Your task to perform on an android device: turn on the 12-hour format for clock Image 0: 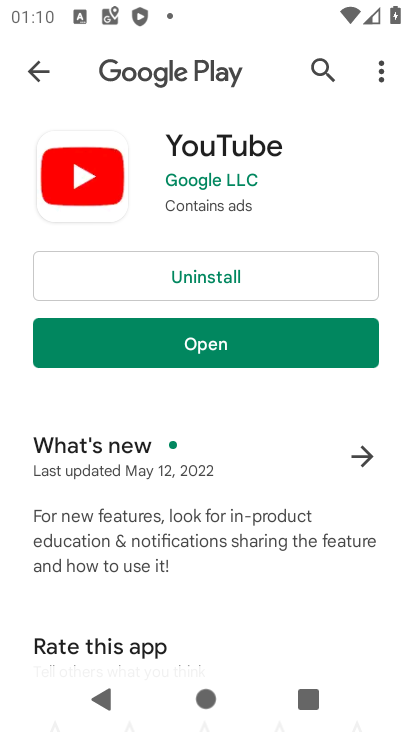
Step 0: press home button
Your task to perform on an android device: turn on the 12-hour format for clock Image 1: 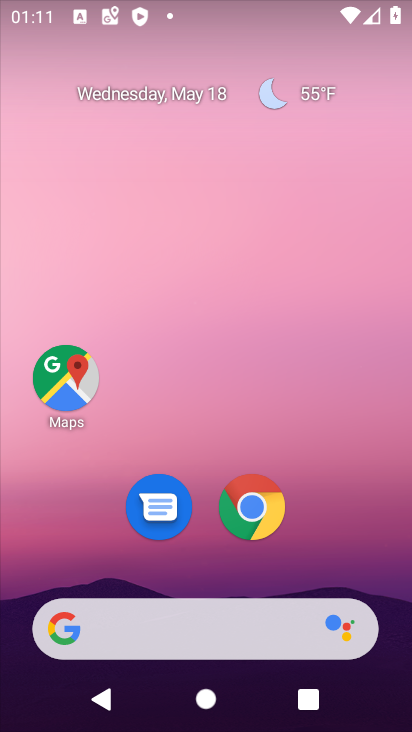
Step 1: drag from (393, 627) to (301, 14)
Your task to perform on an android device: turn on the 12-hour format for clock Image 2: 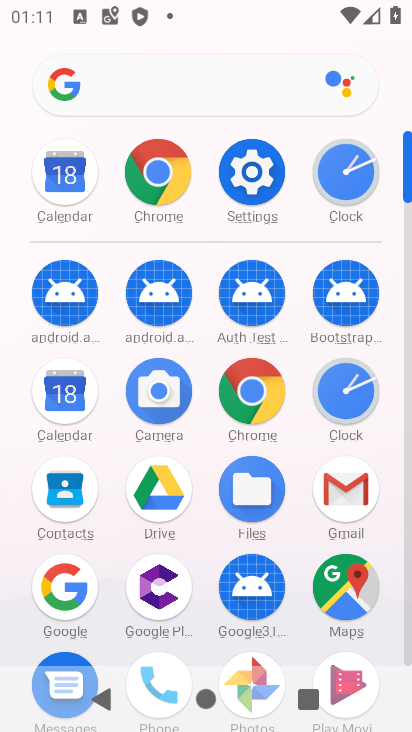
Step 2: click (344, 390)
Your task to perform on an android device: turn on the 12-hour format for clock Image 3: 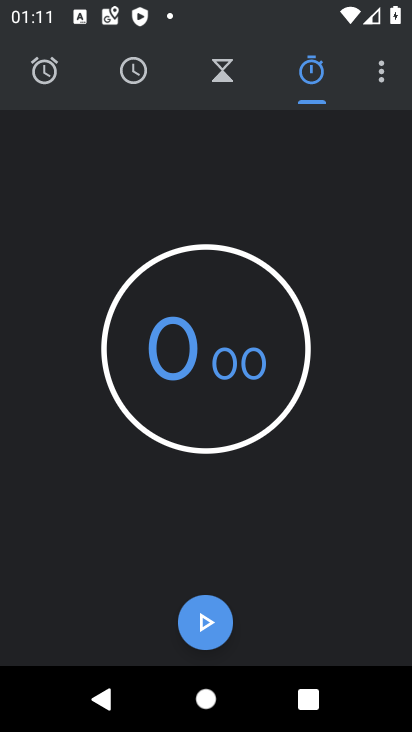
Step 3: click (380, 77)
Your task to perform on an android device: turn on the 12-hour format for clock Image 4: 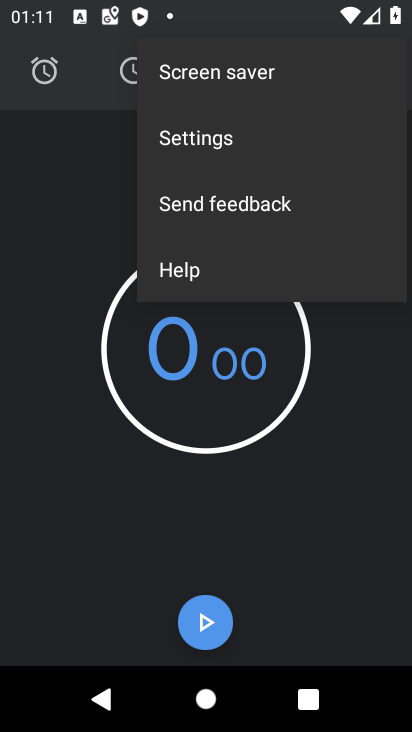
Step 4: click (186, 134)
Your task to perform on an android device: turn on the 12-hour format for clock Image 5: 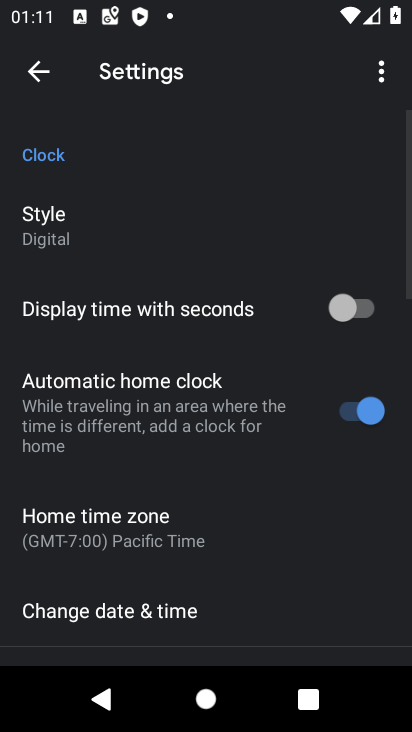
Step 5: drag from (287, 559) to (259, 271)
Your task to perform on an android device: turn on the 12-hour format for clock Image 6: 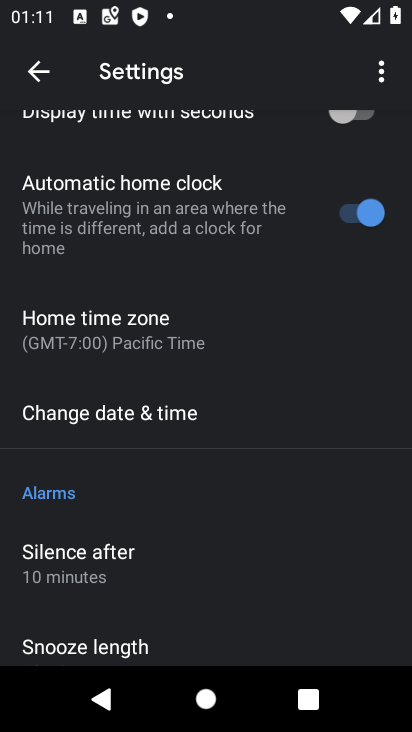
Step 6: click (123, 403)
Your task to perform on an android device: turn on the 12-hour format for clock Image 7: 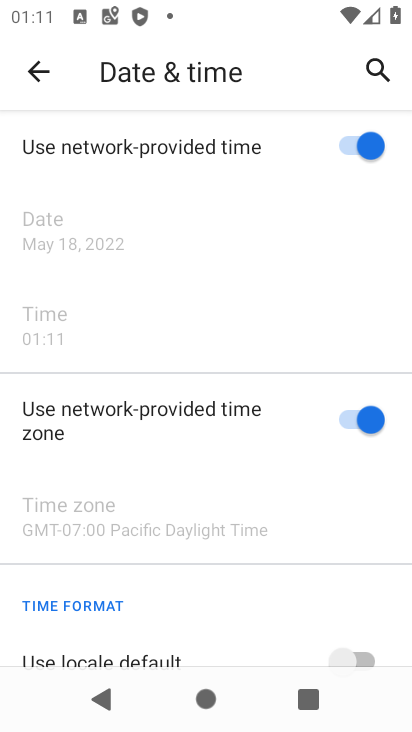
Step 7: drag from (240, 572) to (182, 235)
Your task to perform on an android device: turn on the 12-hour format for clock Image 8: 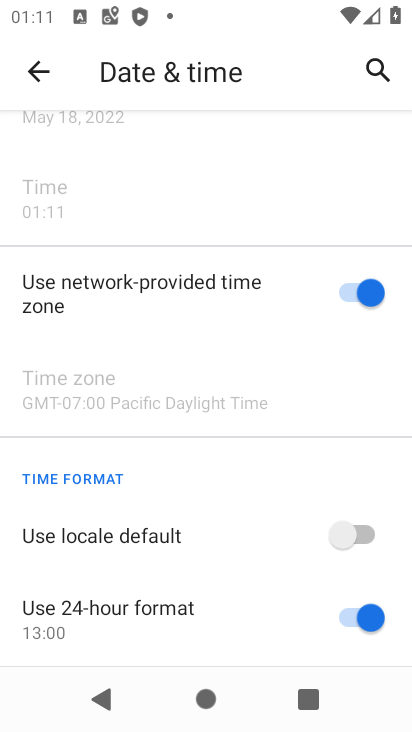
Step 8: click (359, 535)
Your task to perform on an android device: turn on the 12-hour format for clock Image 9: 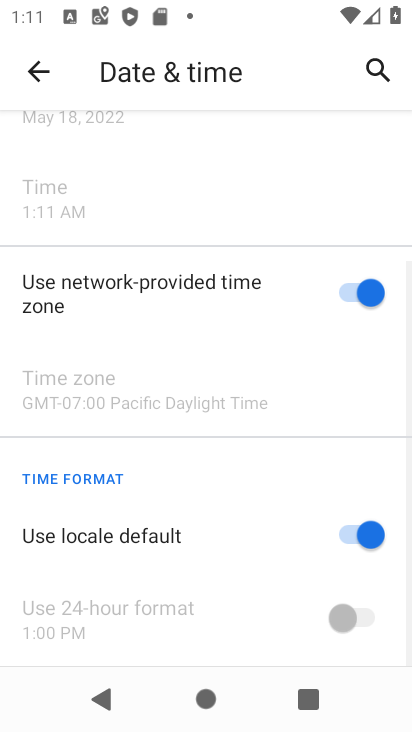
Step 9: task complete